Your task to perform on an android device: Go to Yahoo.com Image 0: 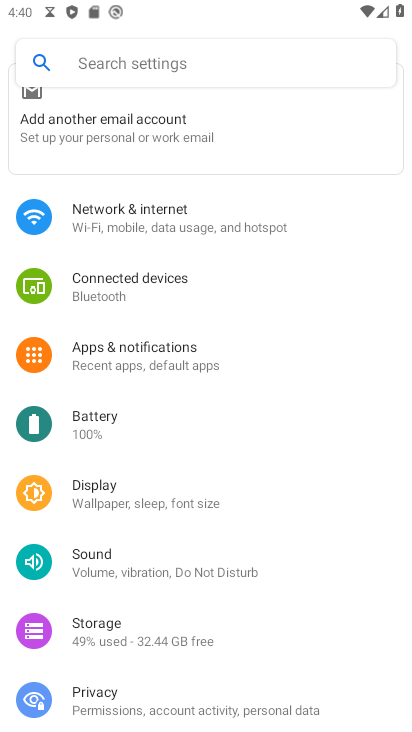
Step 0: press home button
Your task to perform on an android device: Go to Yahoo.com Image 1: 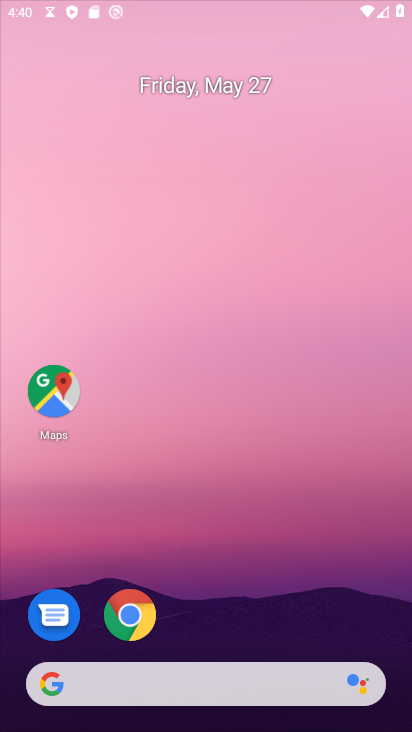
Step 1: drag from (285, 632) to (239, 73)
Your task to perform on an android device: Go to Yahoo.com Image 2: 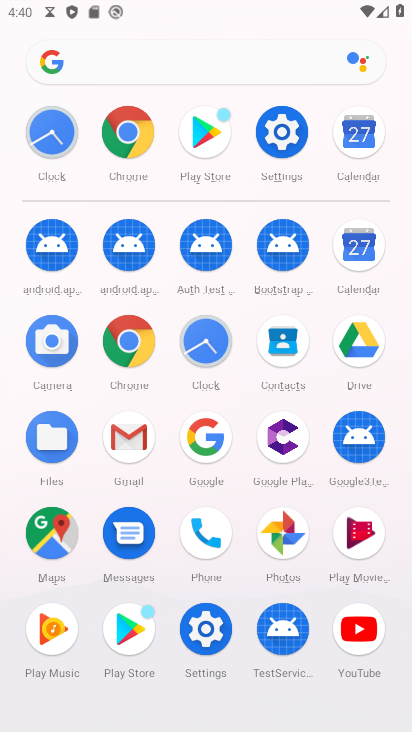
Step 2: click (138, 347)
Your task to perform on an android device: Go to Yahoo.com Image 3: 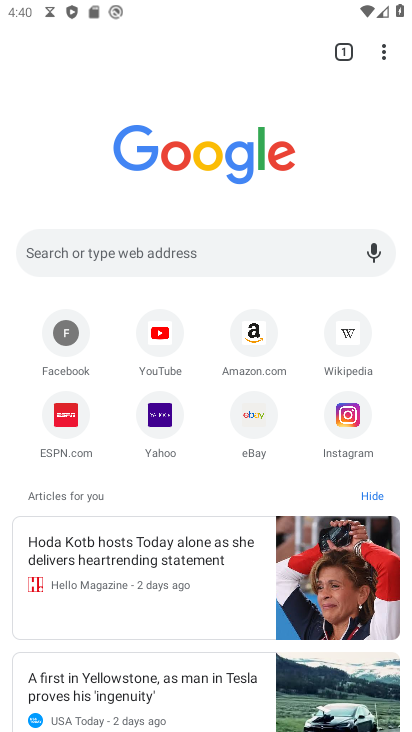
Step 3: click (167, 404)
Your task to perform on an android device: Go to Yahoo.com Image 4: 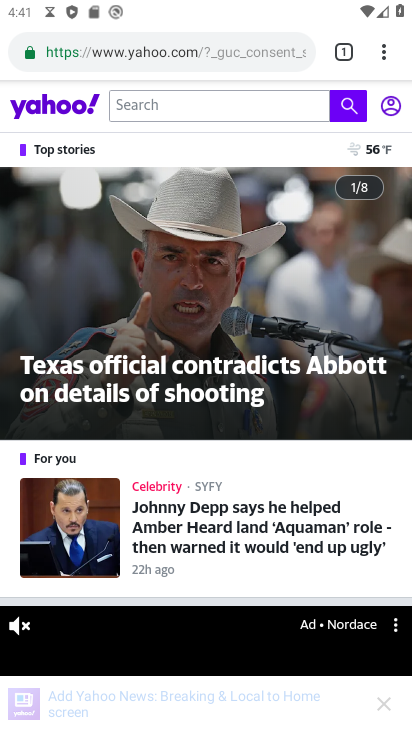
Step 4: task complete